Your task to perform on an android device: Open calendar and show me the second week of next month Image 0: 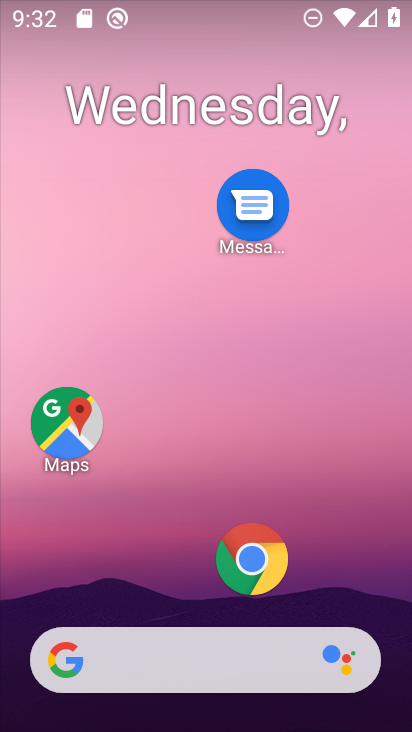
Step 0: drag from (154, 553) to (257, 191)
Your task to perform on an android device: Open calendar and show me the second week of next month Image 1: 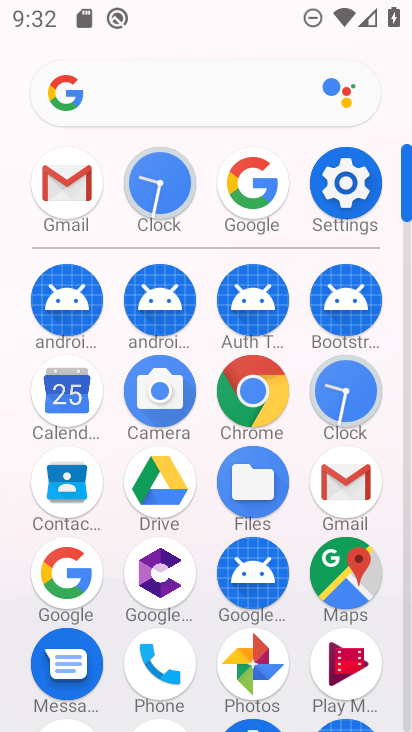
Step 1: click (69, 406)
Your task to perform on an android device: Open calendar and show me the second week of next month Image 2: 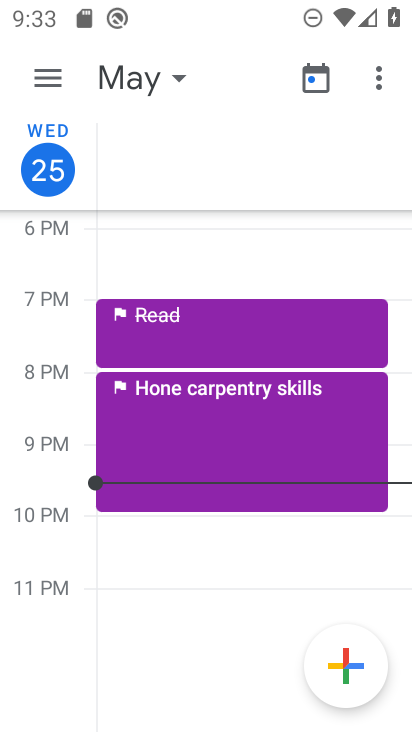
Step 2: click (184, 81)
Your task to perform on an android device: Open calendar and show me the second week of next month Image 3: 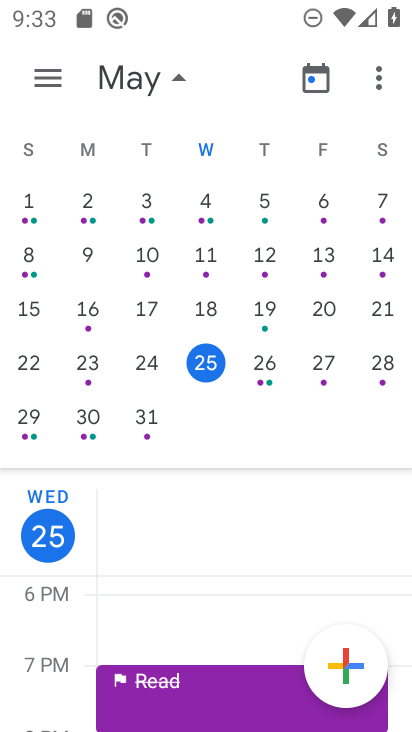
Step 3: drag from (361, 353) to (18, 466)
Your task to perform on an android device: Open calendar and show me the second week of next month Image 4: 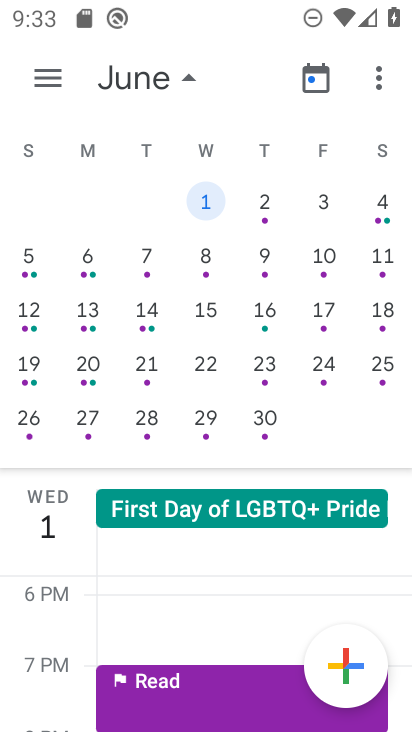
Step 4: click (31, 270)
Your task to perform on an android device: Open calendar and show me the second week of next month Image 5: 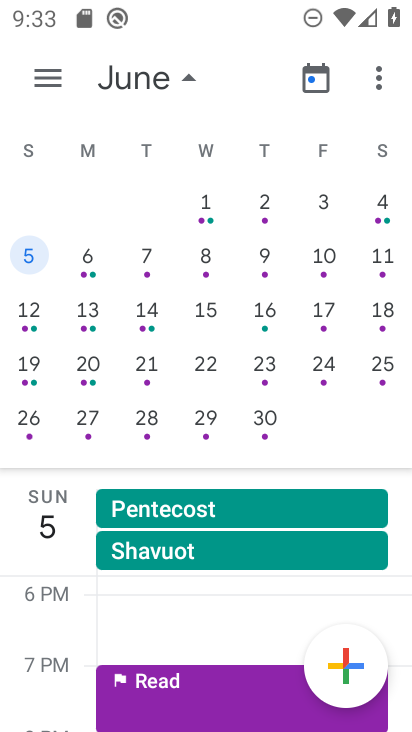
Step 5: task complete